Your task to perform on an android device: open device folders in google photos Image 0: 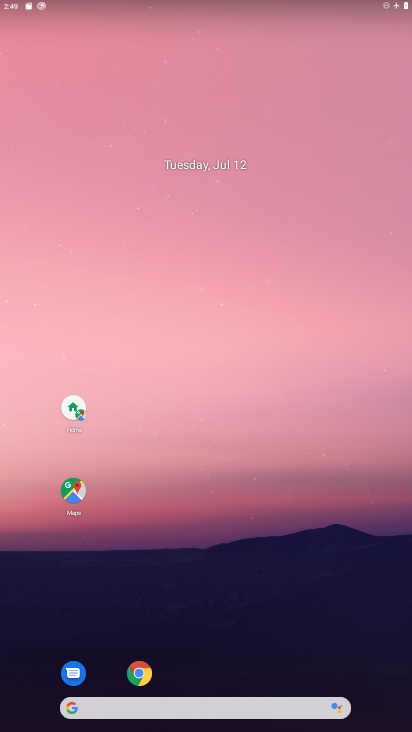
Step 0: drag from (245, 624) to (230, 283)
Your task to perform on an android device: open device folders in google photos Image 1: 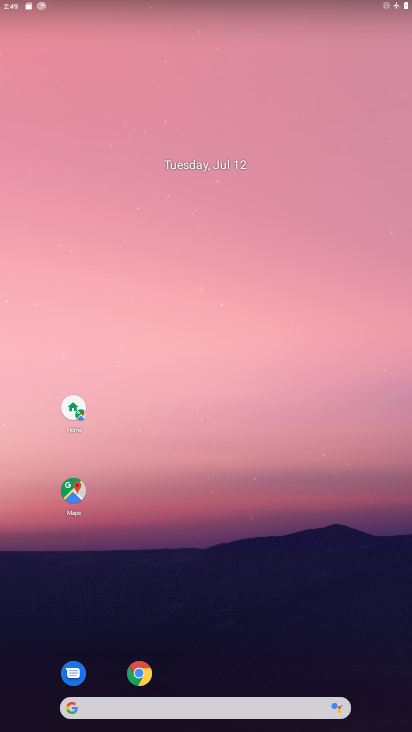
Step 1: drag from (285, 655) to (275, 287)
Your task to perform on an android device: open device folders in google photos Image 2: 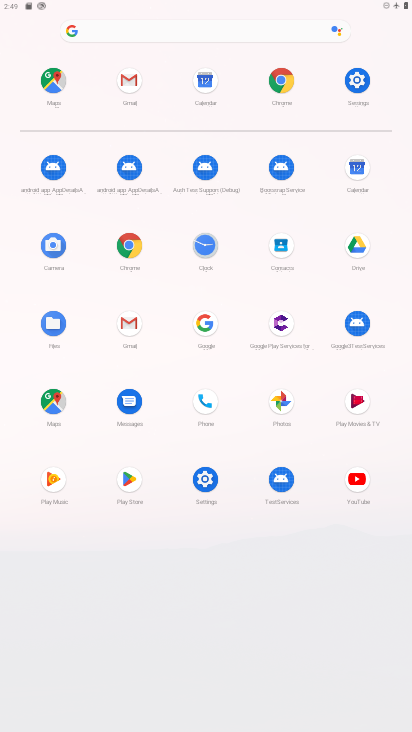
Step 2: click (287, 409)
Your task to perform on an android device: open device folders in google photos Image 3: 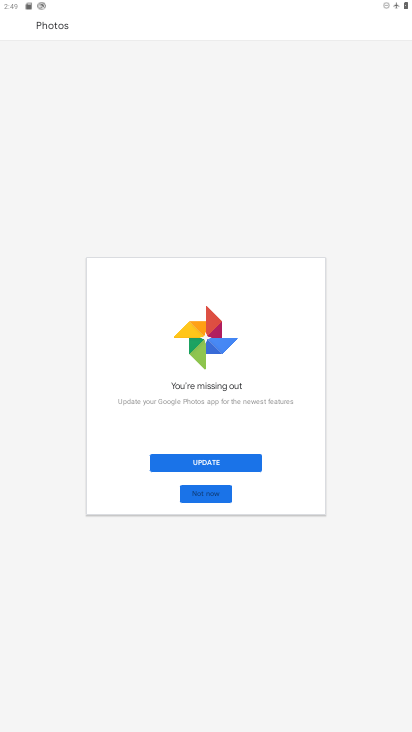
Step 3: click (204, 496)
Your task to perform on an android device: open device folders in google photos Image 4: 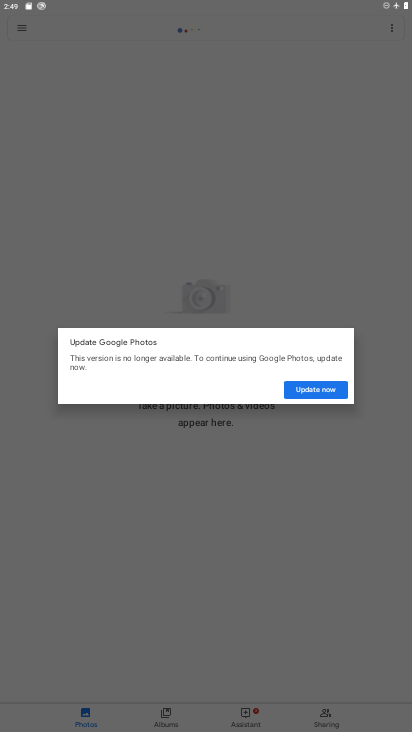
Step 4: click (256, 438)
Your task to perform on an android device: open device folders in google photos Image 5: 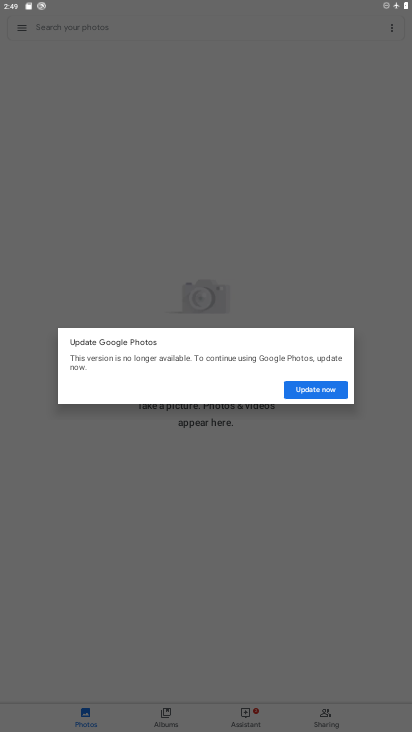
Step 5: click (319, 388)
Your task to perform on an android device: open device folders in google photos Image 6: 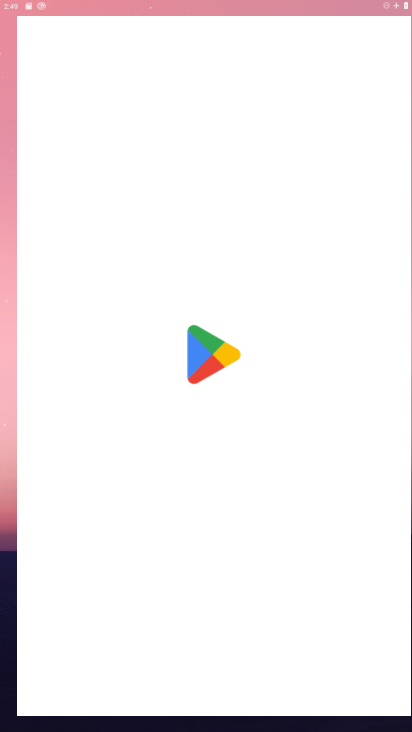
Step 6: press back button
Your task to perform on an android device: open device folders in google photos Image 7: 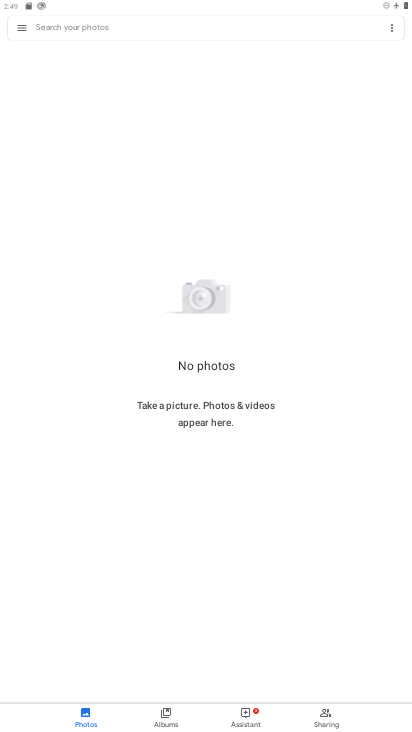
Step 7: click (164, 706)
Your task to perform on an android device: open device folders in google photos Image 8: 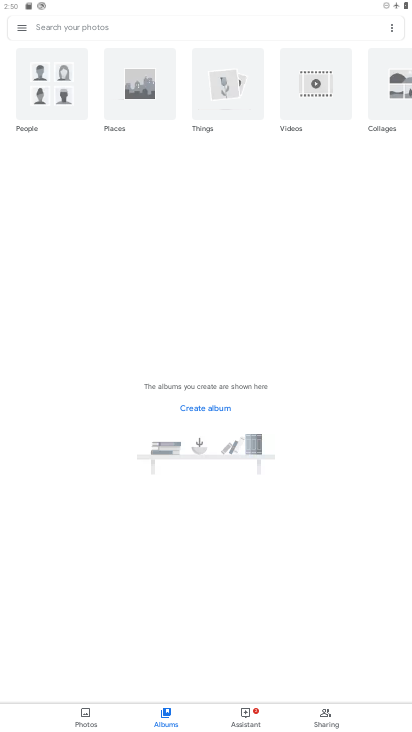
Step 8: task complete